Your task to perform on an android device: Open Amazon Image 0: 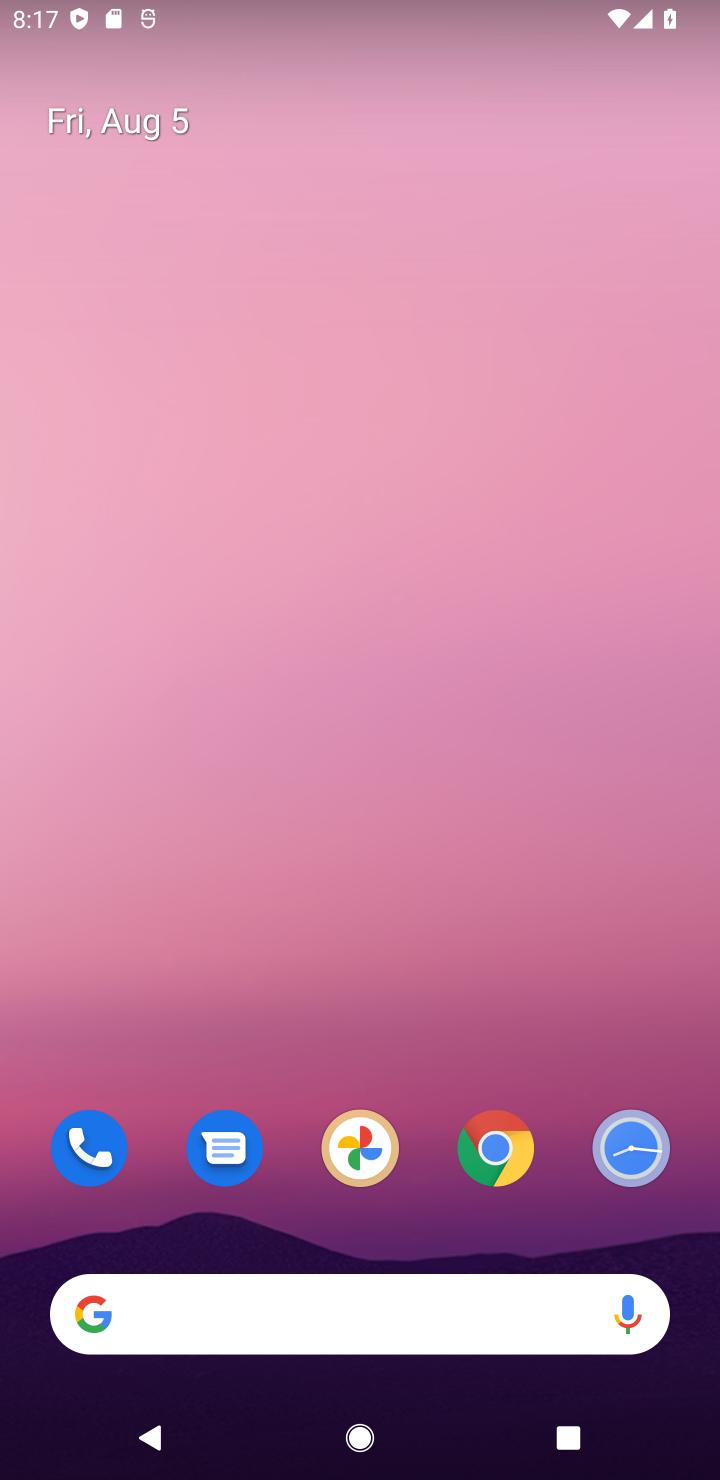
Step 0: drag from (429, 1245) to (410, 164)
Your task to perform on an android device: Open Amazon Image 1: 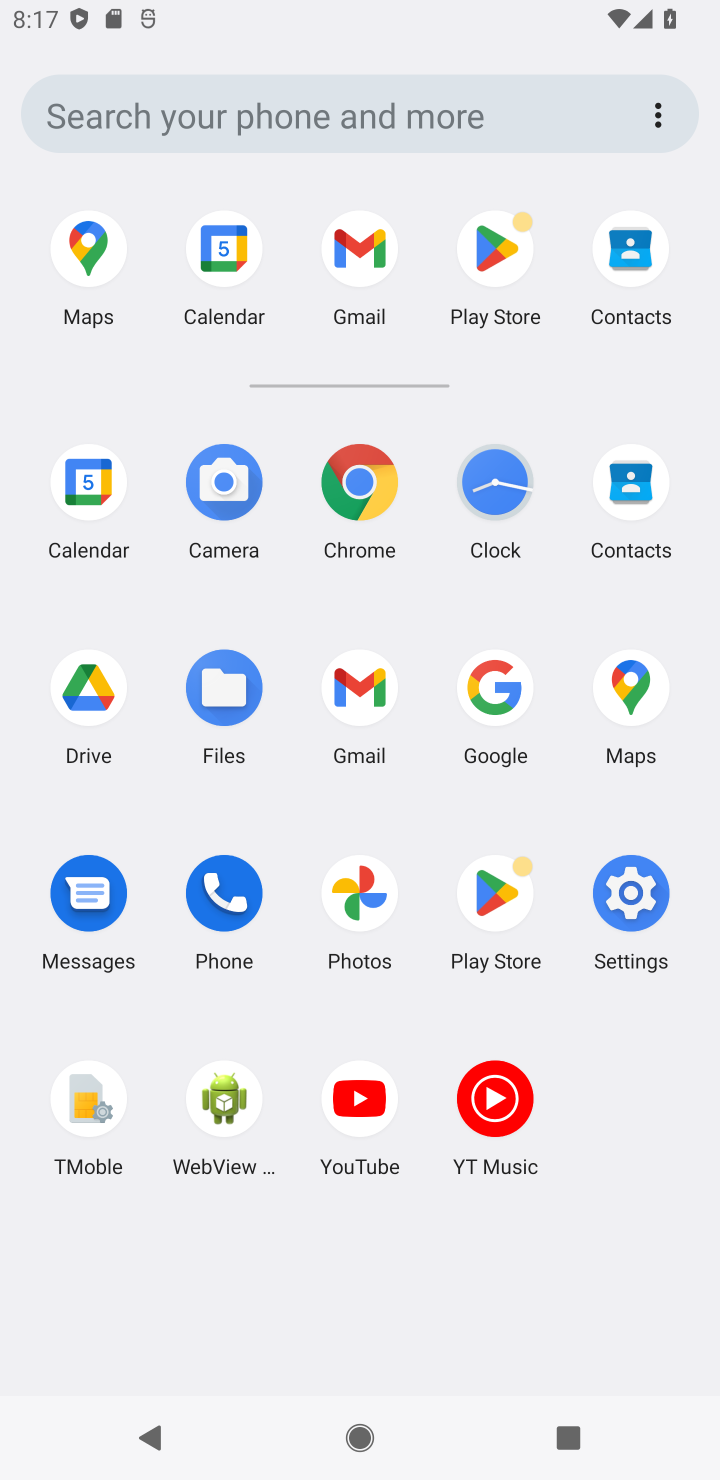
Step 1: click (352, 476)
Your task to perform on an android device: Open Amazon Image 2: 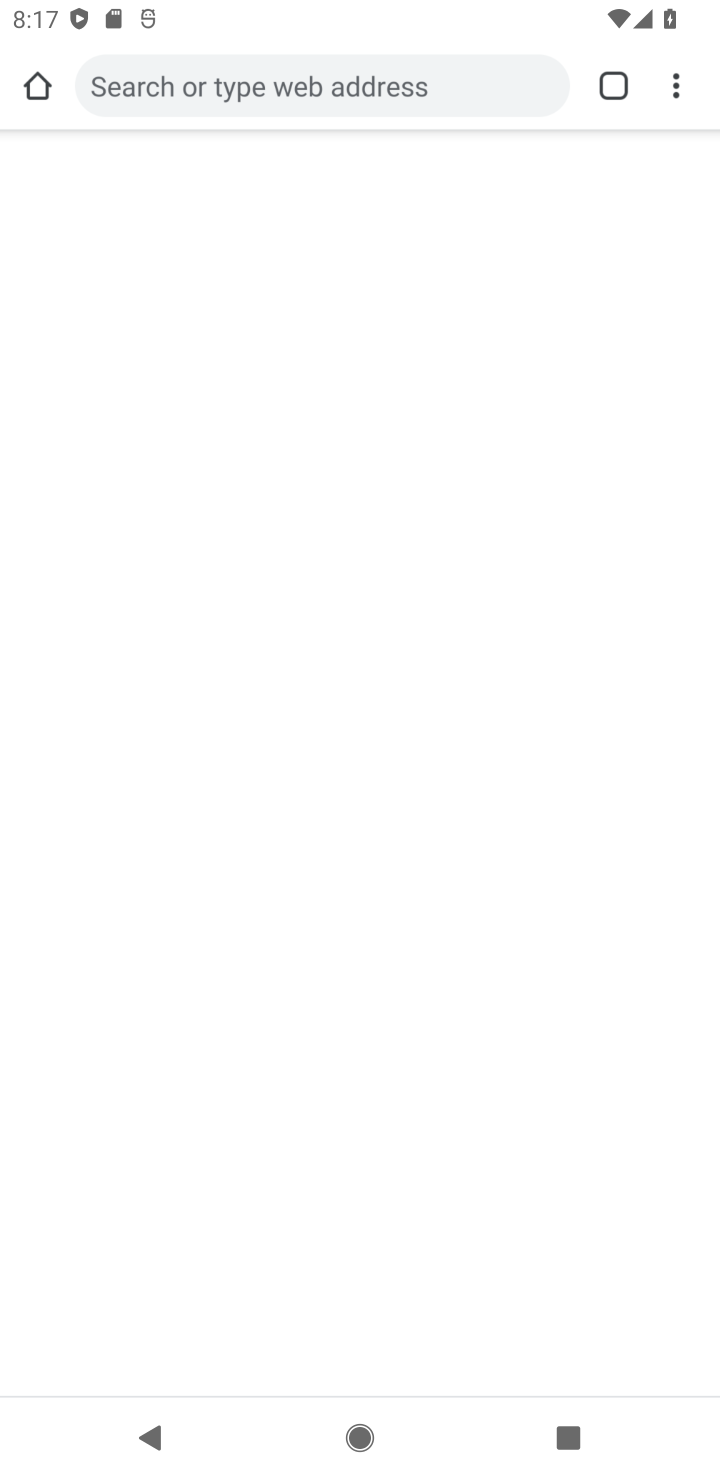
Step 2: click (367, 535)
Your task to perform on an android device: Open Amazon Image 3: 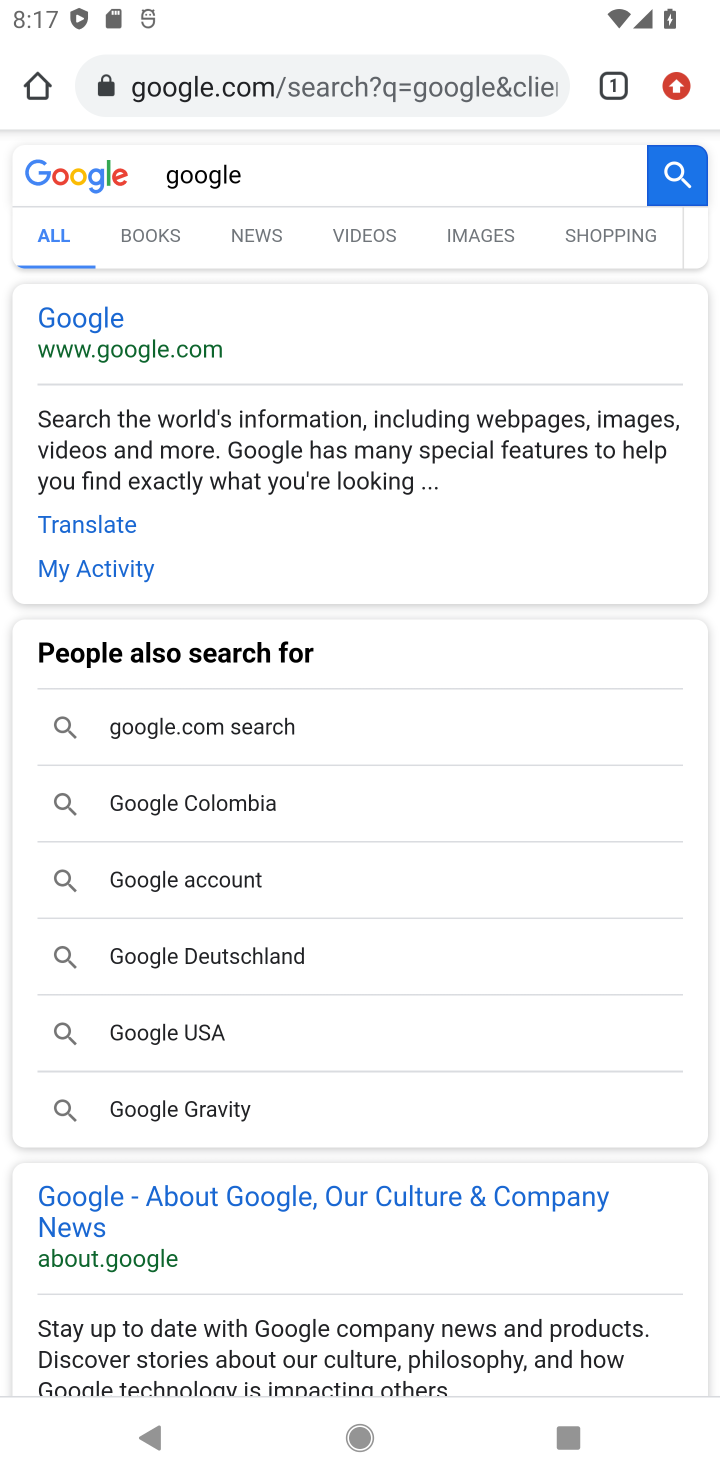
Step 3: task complete